Your task to perform on an android device: Open privacy settings Image 0: 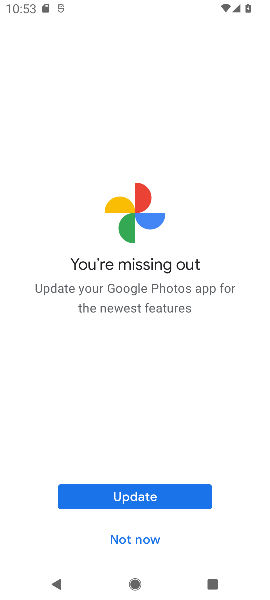
Step 0: press home button
Your task to perform on an android device: Open privacy settings Image 1: 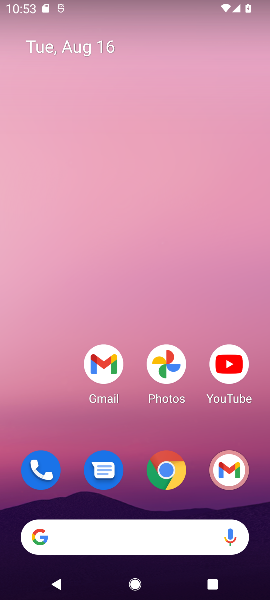
Step 1: drag from (49, 383) to (141, 0)
Your task to perform on an android device: Open privacy settings Image 2: 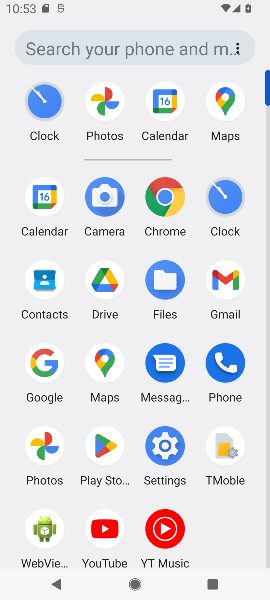
Step 2: click (165, 443)
Your task to perform on an android device: Open privacy settings Image 3: 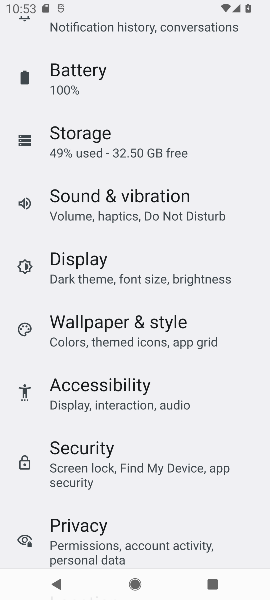
Step 3: click (106, 543)
Your task to perform on an android device: Open privacy settings Image 4: 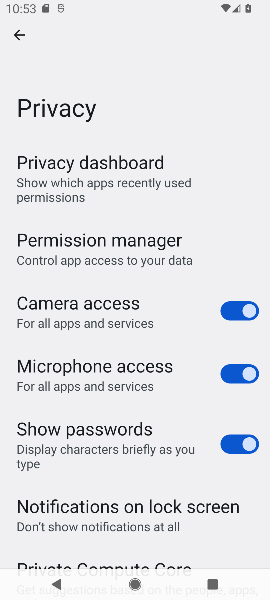
Step 4: task complete